Your task to perform on an android device: Open Youtube and go to the subscriptions tab Image 0: 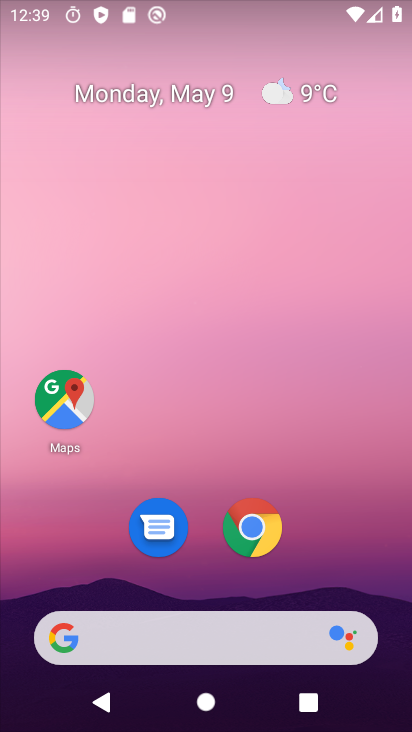
Step 0: drag from (200, 579) to (279, 53)
Your task to perform on an android device: Open Youtube and go to the subscriptions tab Image 1: 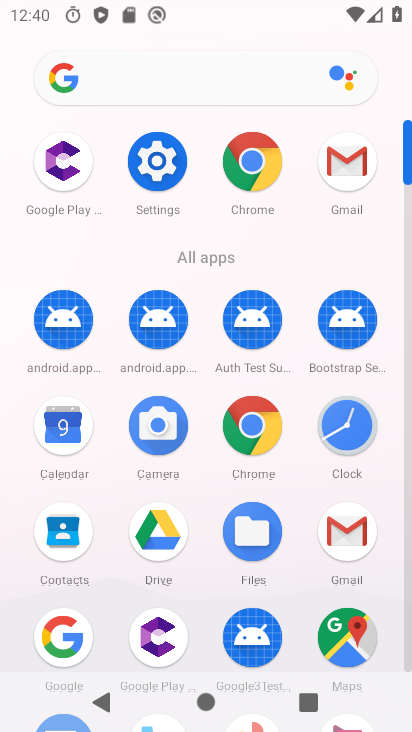
Step 1: drag from (242, 629) to (308, 18)
Your task to perform on an android device: Open Youtube and go to the subscriptions tab Image 2: 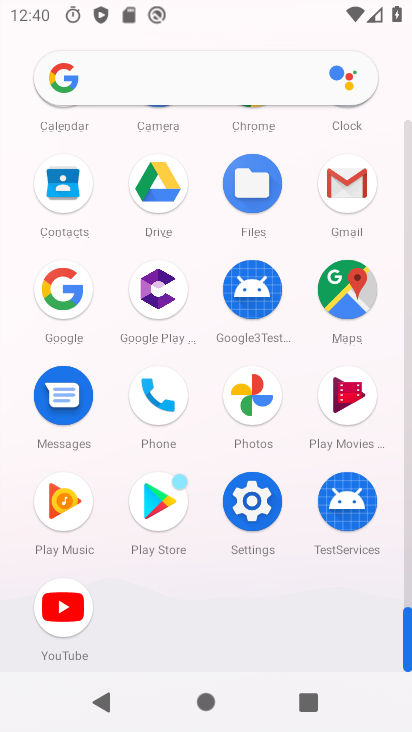
Step 2: click (55, 620)
Your task to perform on an android device: Open Youtube and go to the subscriptions tab Image 3: 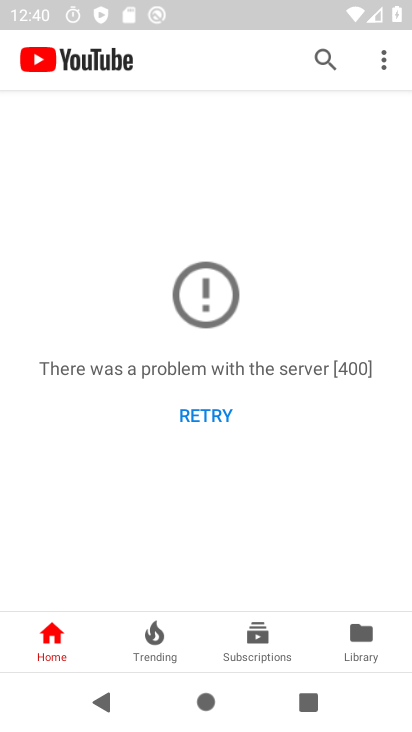
Step 3: click (255, 625)
Your task to perform on an android device: Open Youtube and go to the subscriptions tab Image 4: 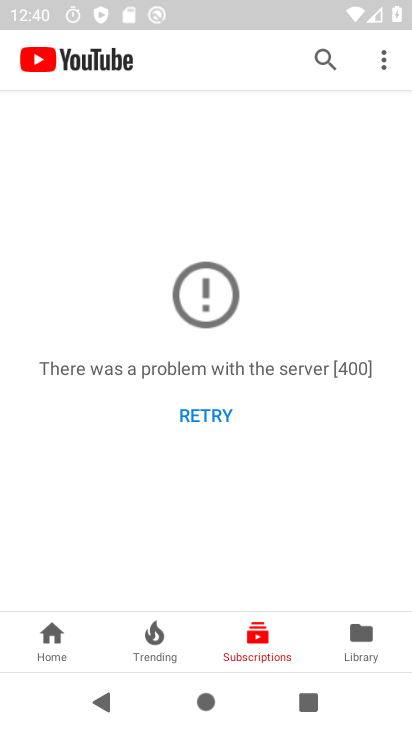
Step 4: task complete